Your task to perform on an android device: toggle location history Image 0: 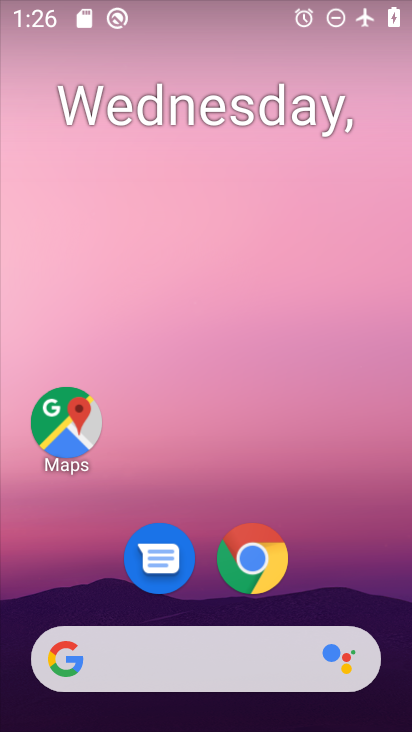
Step 0: drag from (388, 616) to (326, 220)
Your task to perform on an android device: toggle location history Image 1: 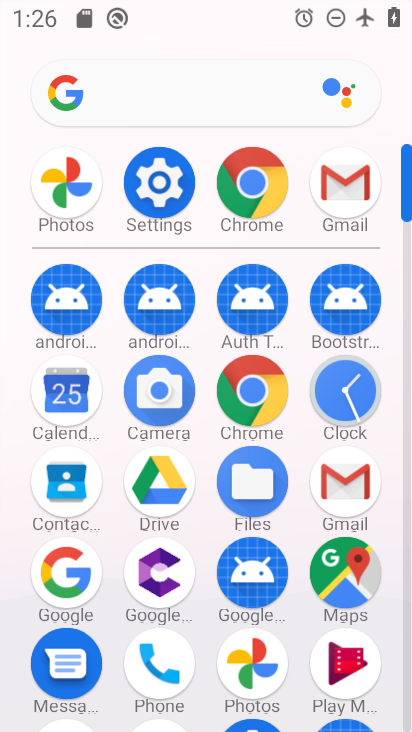
Step 1: click (177, 181)
Your task to perform on an android device: toggle location history Image 2: 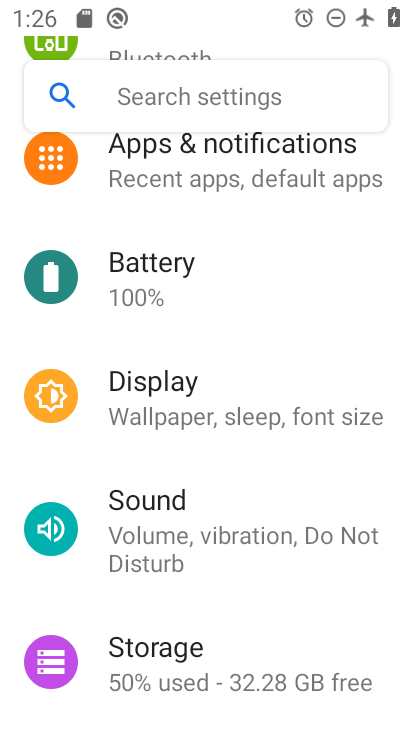
Step 2: drag from (187, 231) to (233, 674)
Your task to perform on an android device: toggle location history Image 3: 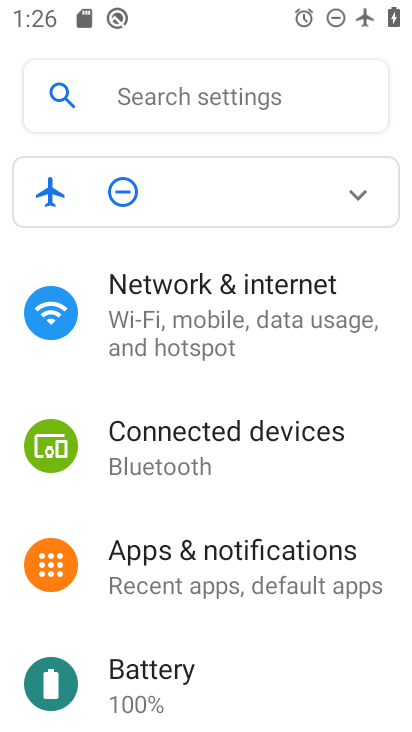
Step 3: drag from (233, 674) to (263, 106)
Your task to perform on an android device: toggle location history Image 4: 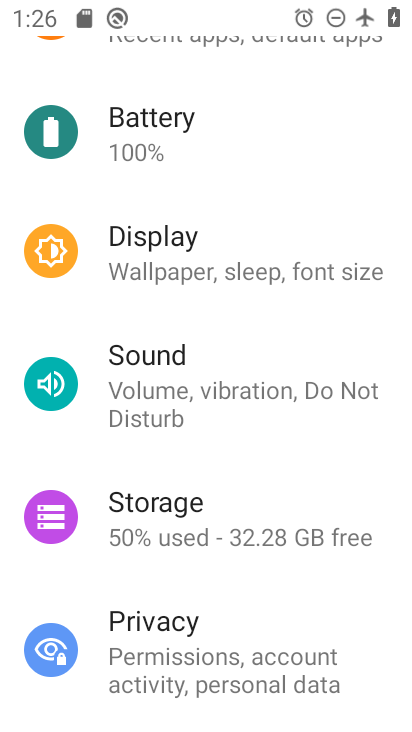
Step 4: drag from (177, 665) to (237, 253)
Your task to perform on an android device: toggle location history Image 5: 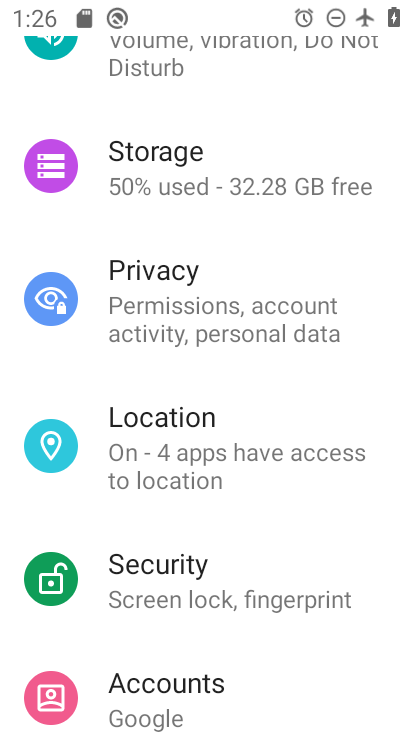
Step 5: click (197, 435)
Your task to perform on an android device: toggle location history Image 6: 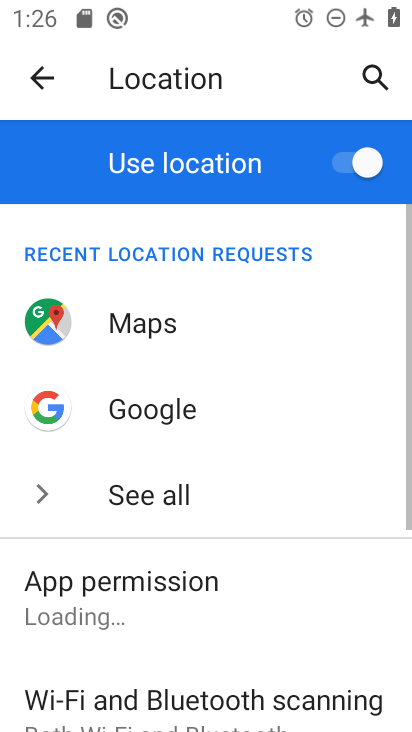
Step 6: drag from (136, 612) to (166, 176)
Your task to perform on an android device: toggle location history Image 7: 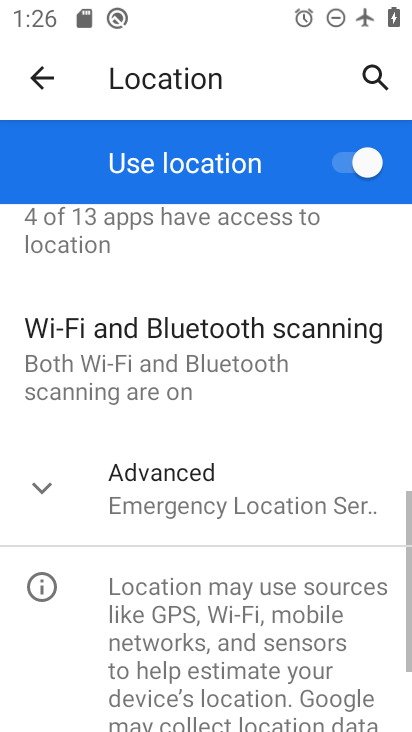
Step 7: click (155, 455)
Your task to perform on an android device: toggle location history Image 8: 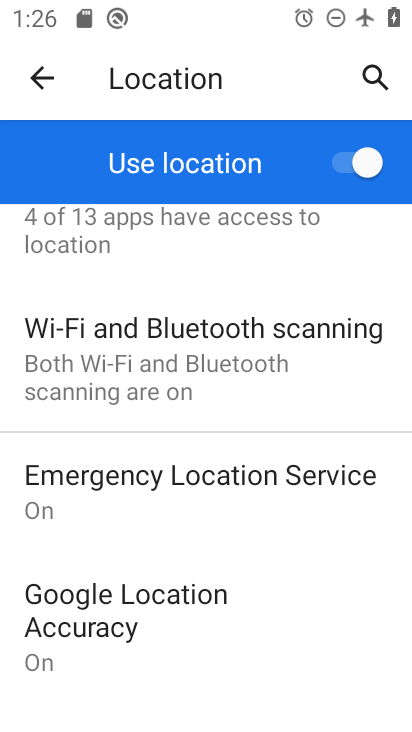
Step 8: drag from (143, 628) to (223, 175)
Your task to perform on an android device: toggle location history Image 9: 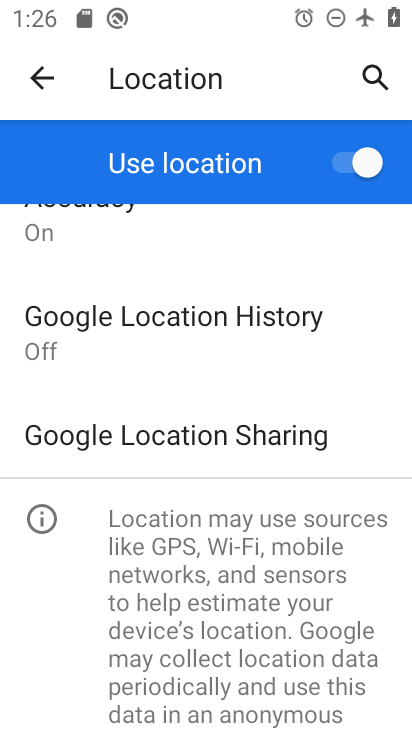
Step 9: click (215, 346)
Your task to perform on an android device: toggle location history Image 10: 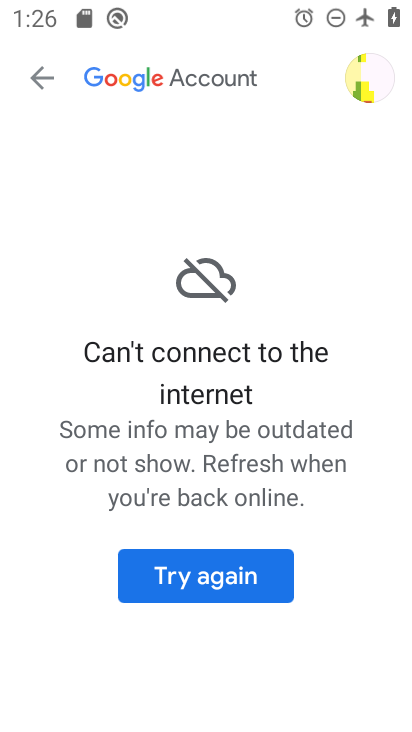
Step 10: task complete